Your task to perform on an android device: snooze an email in the gmail app Image 0: 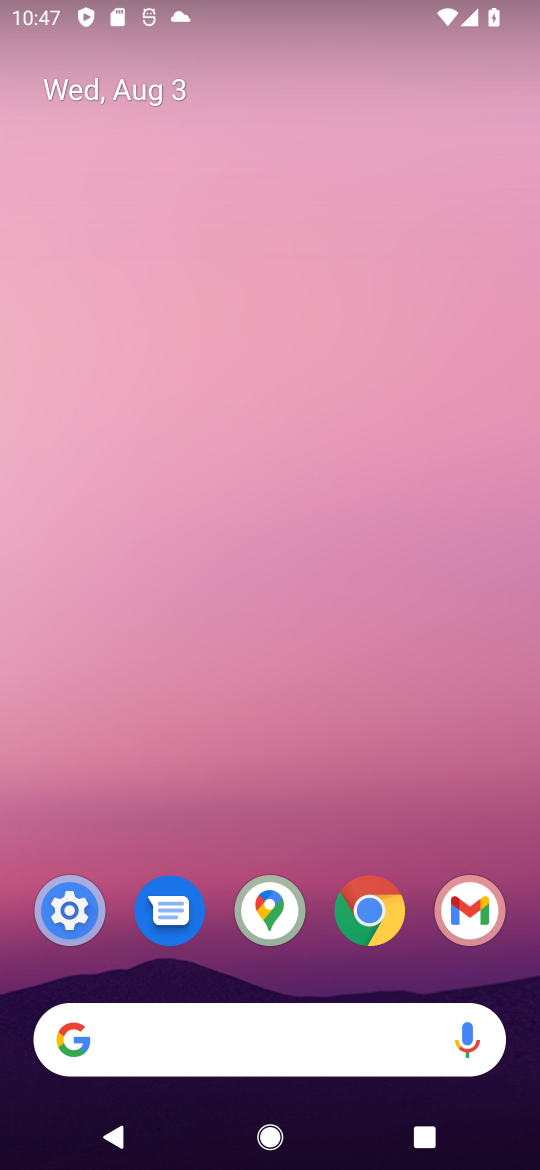
Step 0: press home button
Your task to perform on an android device: snooze an email in the gmail app Image 1: 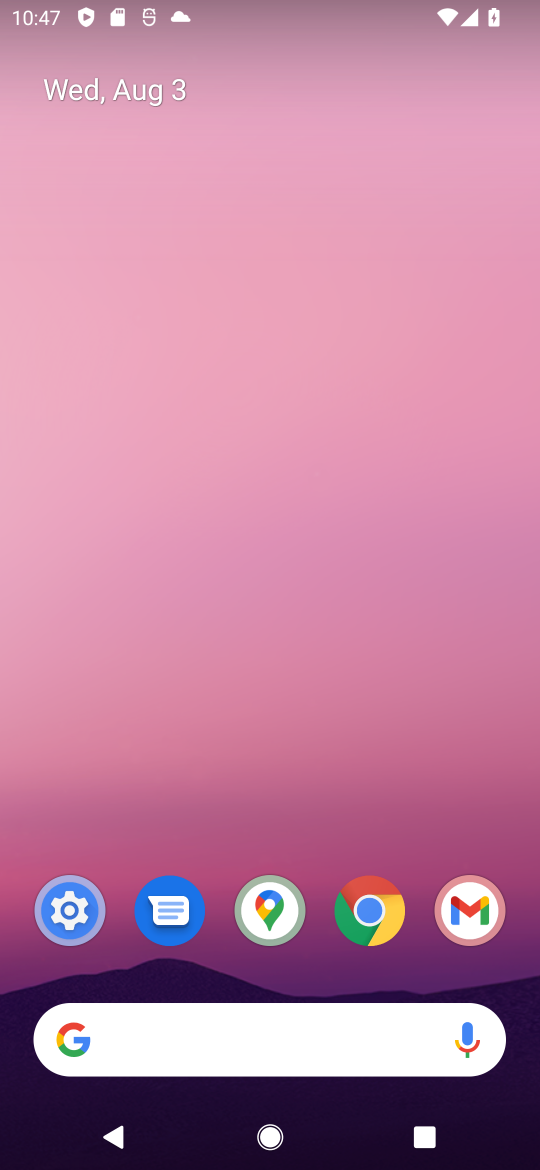
Step 1: press home button
Your task to perform on an android device: snooze an email in the gmail app Image 2: 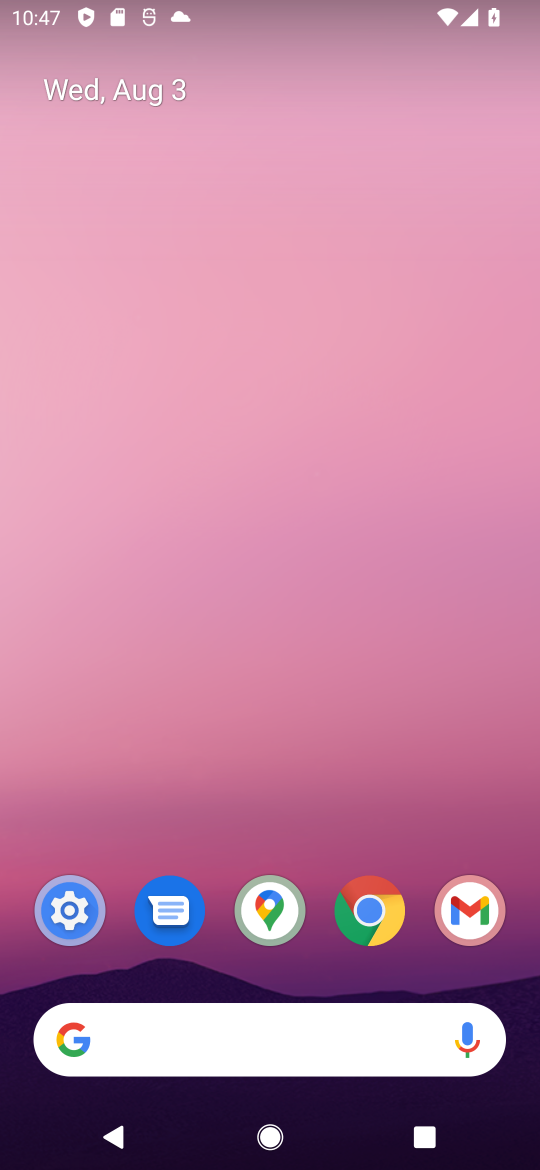
Step 2: press home button
Your task to perform on an android device: snooze an email in the gmail app Image 3: 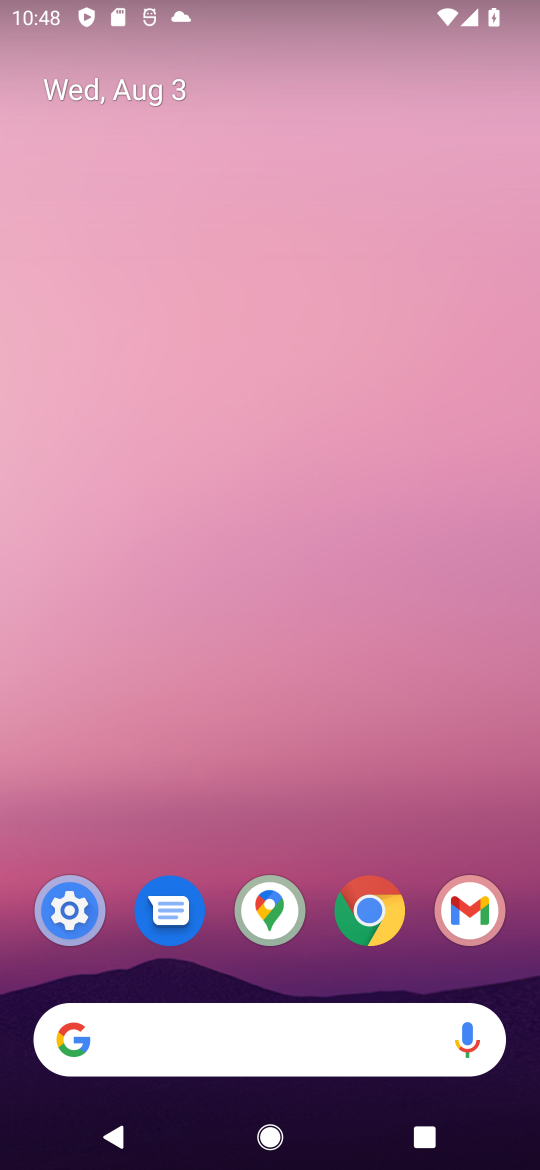
Step 3: press home button
Your task to perform on an android device: snooze an email in the gmail app Image 4: 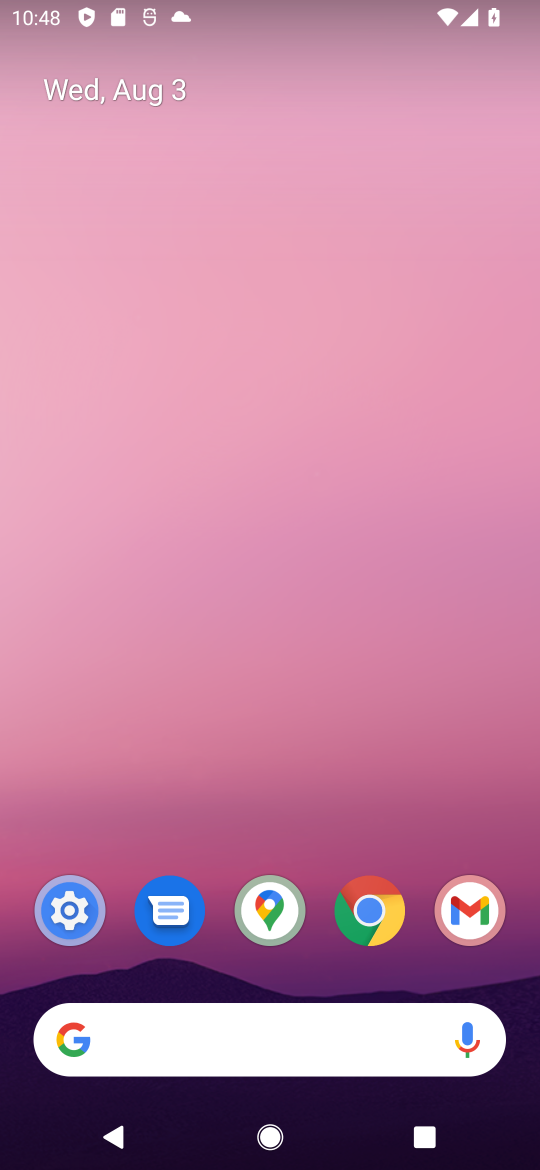
Step 4: press home button
Your task to perform on an android device: snooze an email in the gmail app Image 5: 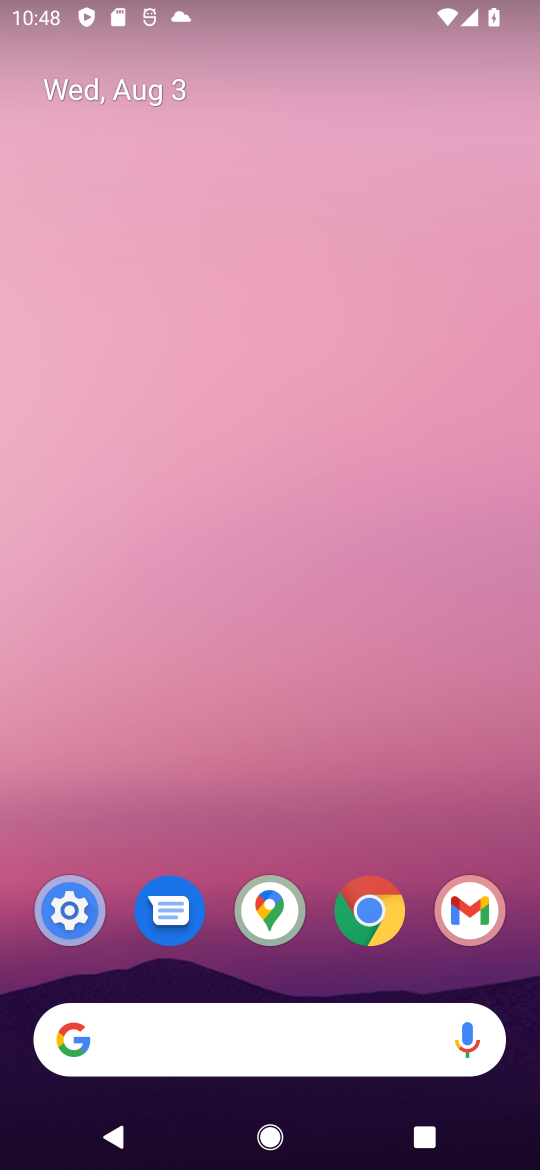
Step 5: press home button
Your task to perform on an android device: snooze an email in the gmail app Image 6: 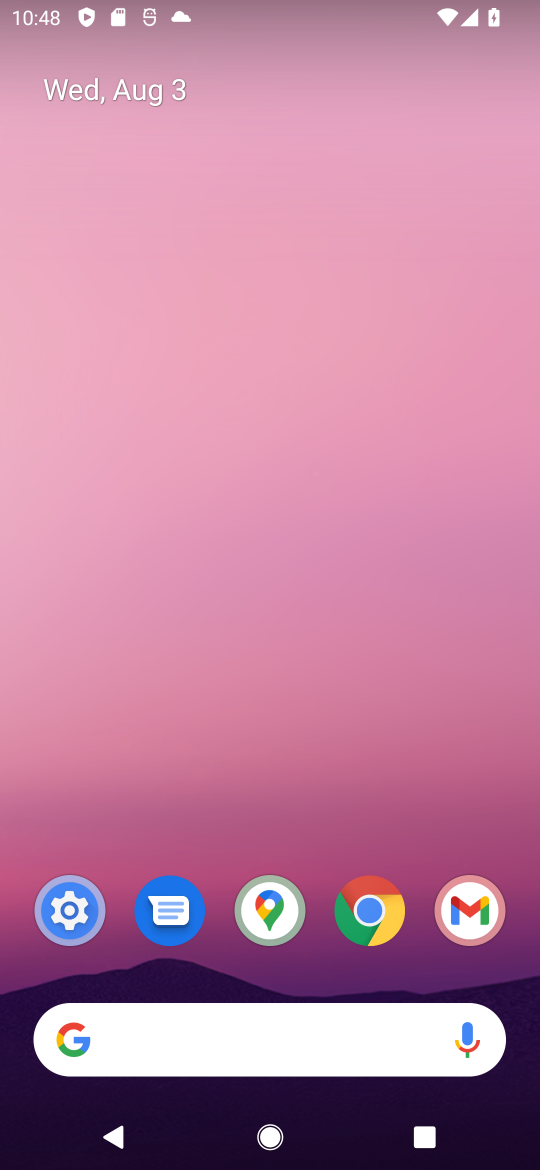
Step 6: press home button
Your task to perform on an android device: snooze an email in the gmail app Image 7: 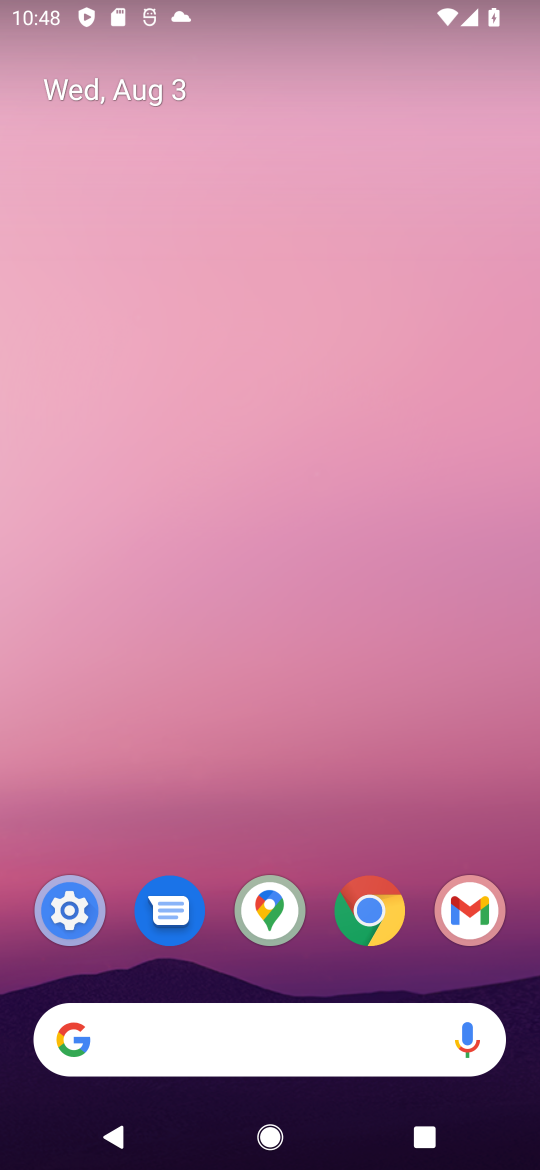
Step 7: click (478, 896)
Your task to perform on an android device: snooze an email in the gmail app Image 8: 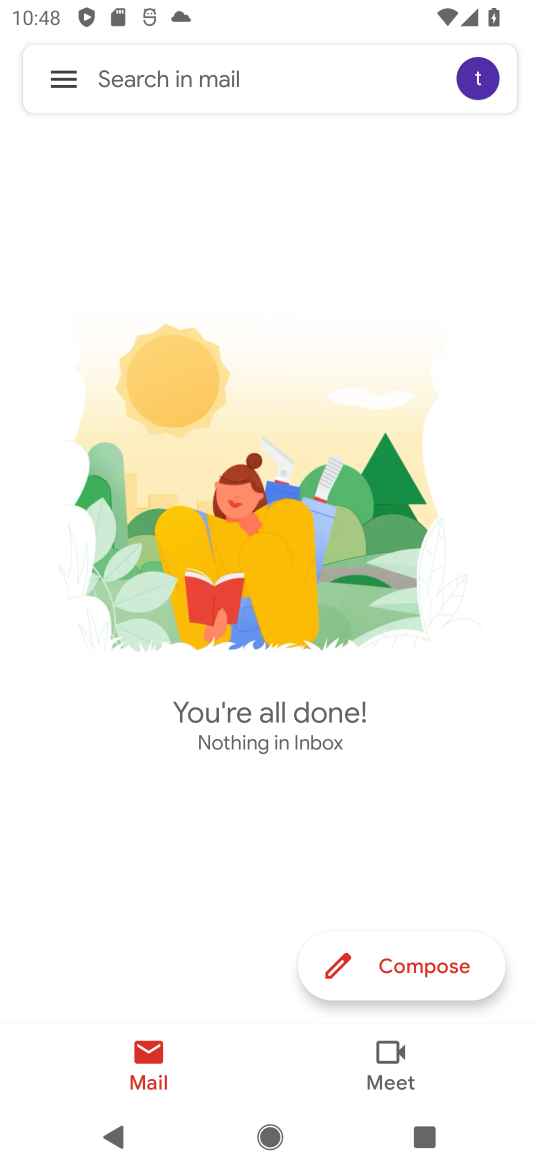
Step 8: click (59, 71)
Your task to perform on an android device: snooze an email in the gmail app Image 9: 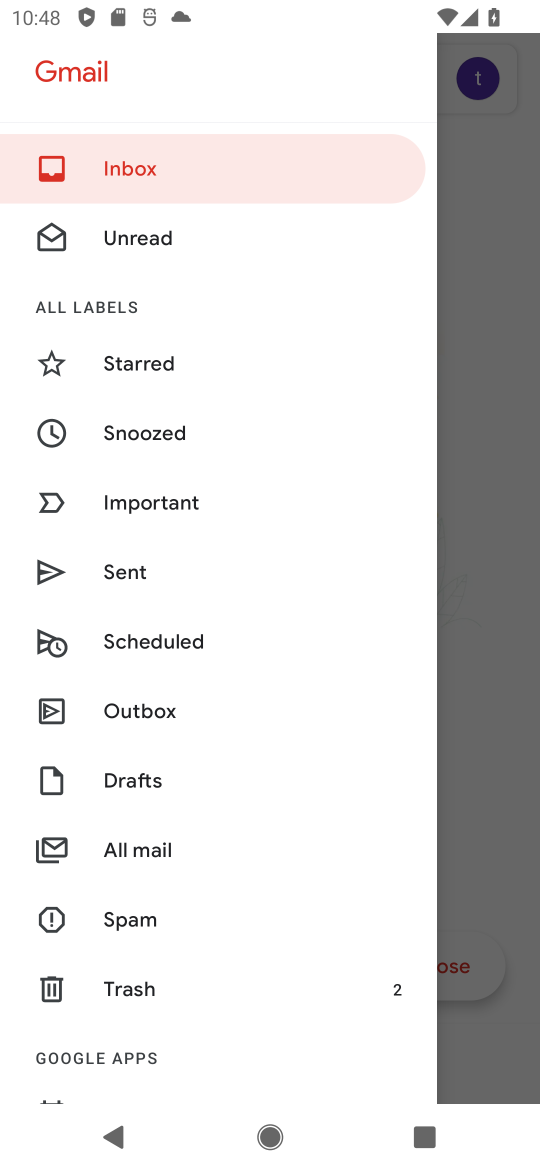
Step 9: click (175, 847)
Your task to perform on an android device: snooze an email in the gmail app Image 10: 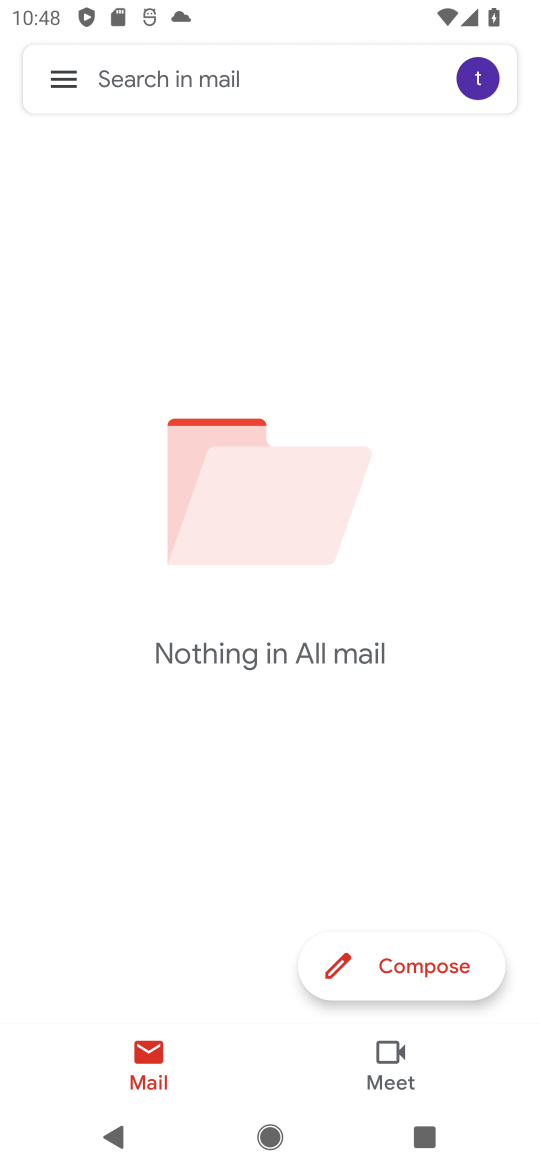
Step 10: task complete